Your task to perform on an android device: turn off priority inbox in the gmail app Image 0: 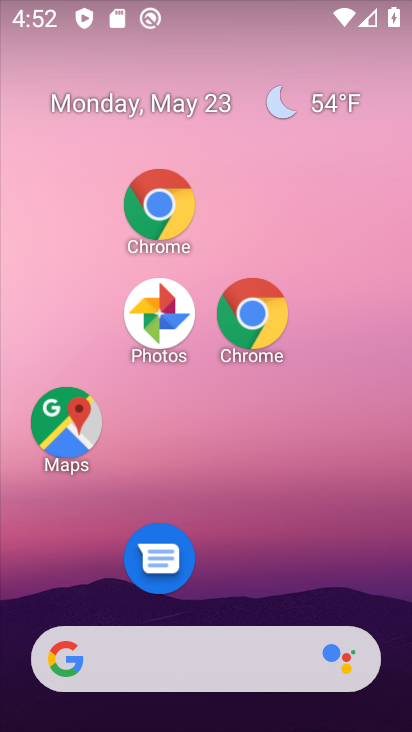
Step 0: drag from (282, 690) to (253, 82)
Your task to perform on an android device: turn off priority inbox in the gmail app Image 1: 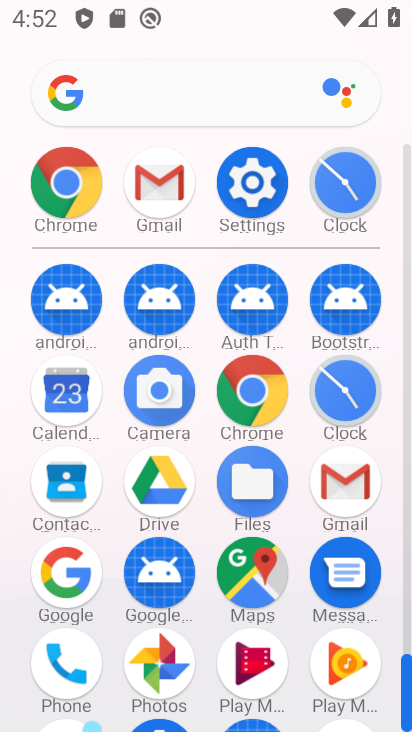
Step 1: click (334, 482)
Your task to perform on an android device: turn off priority inbox in the gmail app Image 2: 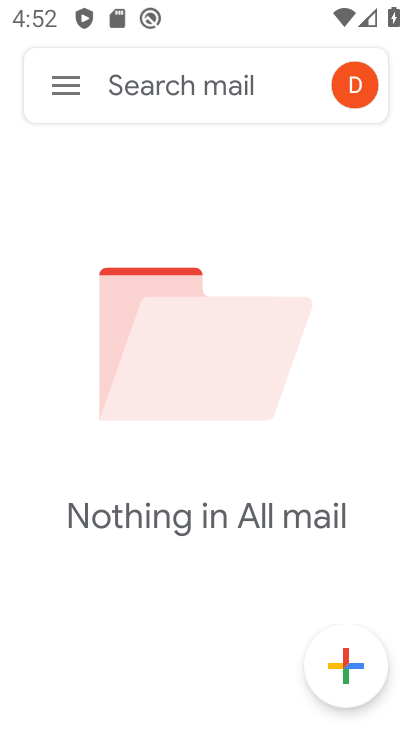
Step 2: click (68, 70)
Your task to perform on an android device: turn off priority inbox in the gmail app Image 3: 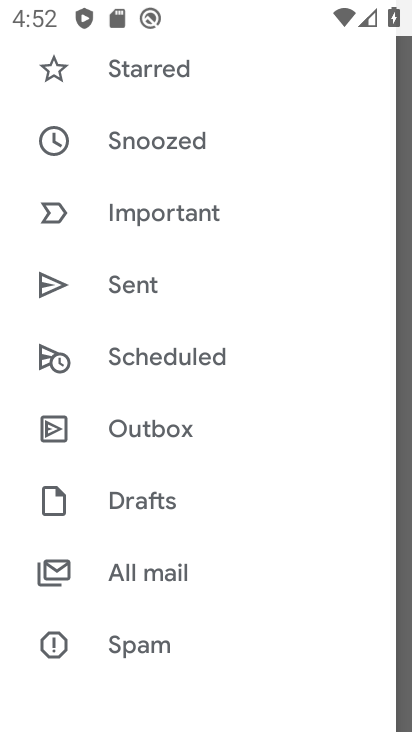
Step 3: drag from (145, 446) to (143, 168)
Your task to perform on an android device: turn off priority inbox in the gmail app Image 4: 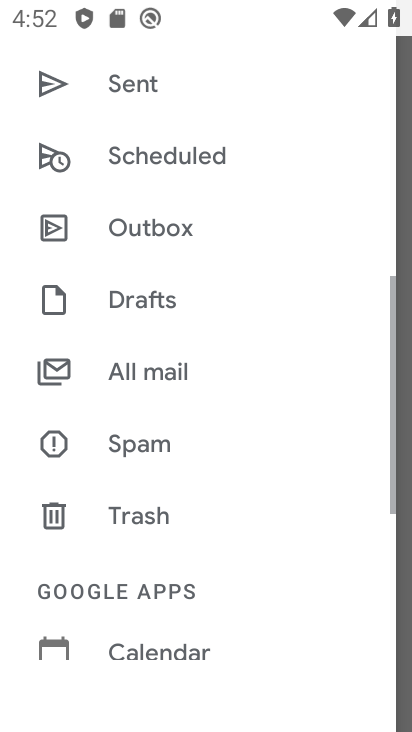
Step 4: drag from (244, 484) to (182, 25)
Your task to perform on an android device: turn off priority inbox in the gmail app Image 5: 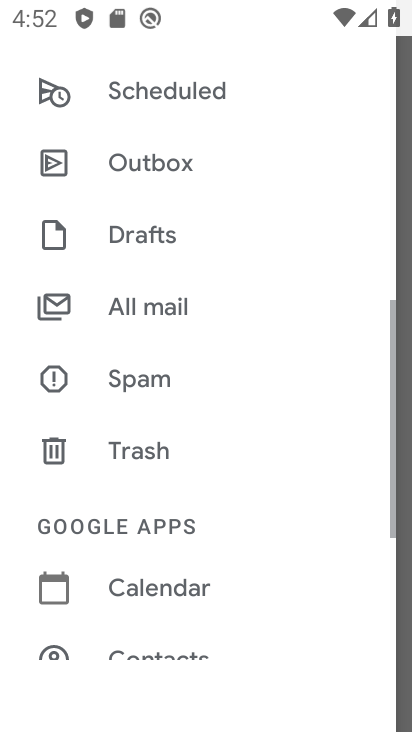
Step 5: drag from (143, 597) to (166, 196)
Your task to perform on an android device: turn off priority inbox in the gmail app Image 6: 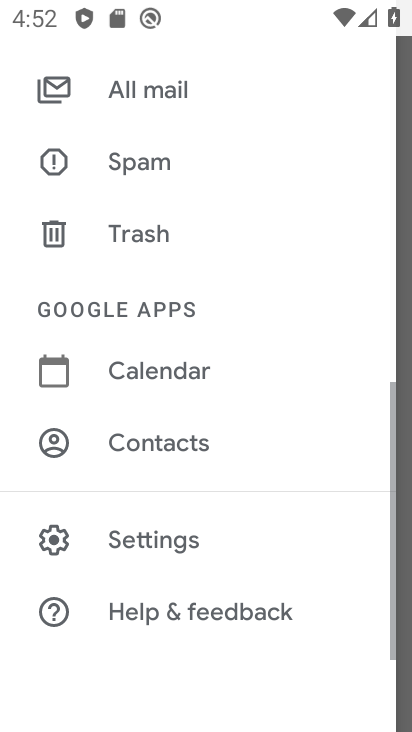
Step 6: drag from (220, 519) to (161, 101)
Your task to perform on an android device: turn off priority inbox in the gmail app Image 7: 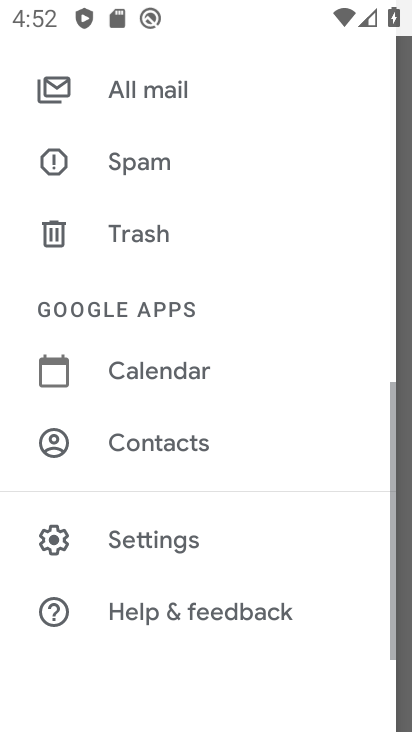
Step 7: click (132, 537)
Your task to perform on an android device: turn off priority inbox in the gmail app Image 8: 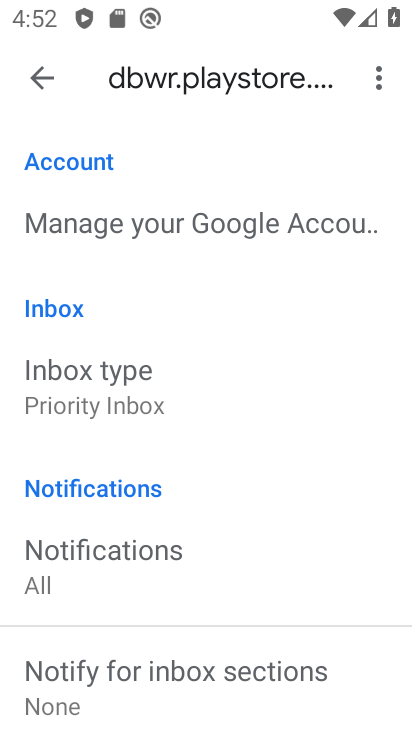
Step 8: click (80, 391)
Your task to perform on an android device: turn off priority inbox in the gmail app Image 9: 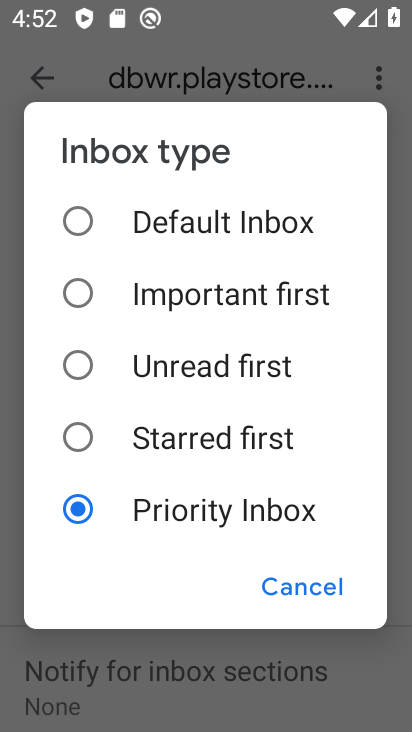
Step 9: click (73, 427)
Your task to perform on an android device: turn off priority inbox in the gmail app Image 10: 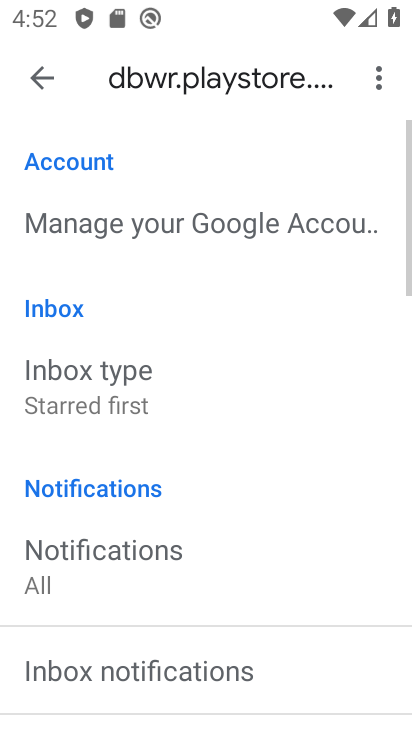
Step 10: task complete